Your task to perform on an android device: move a message to another label in the gmail app Image 0: 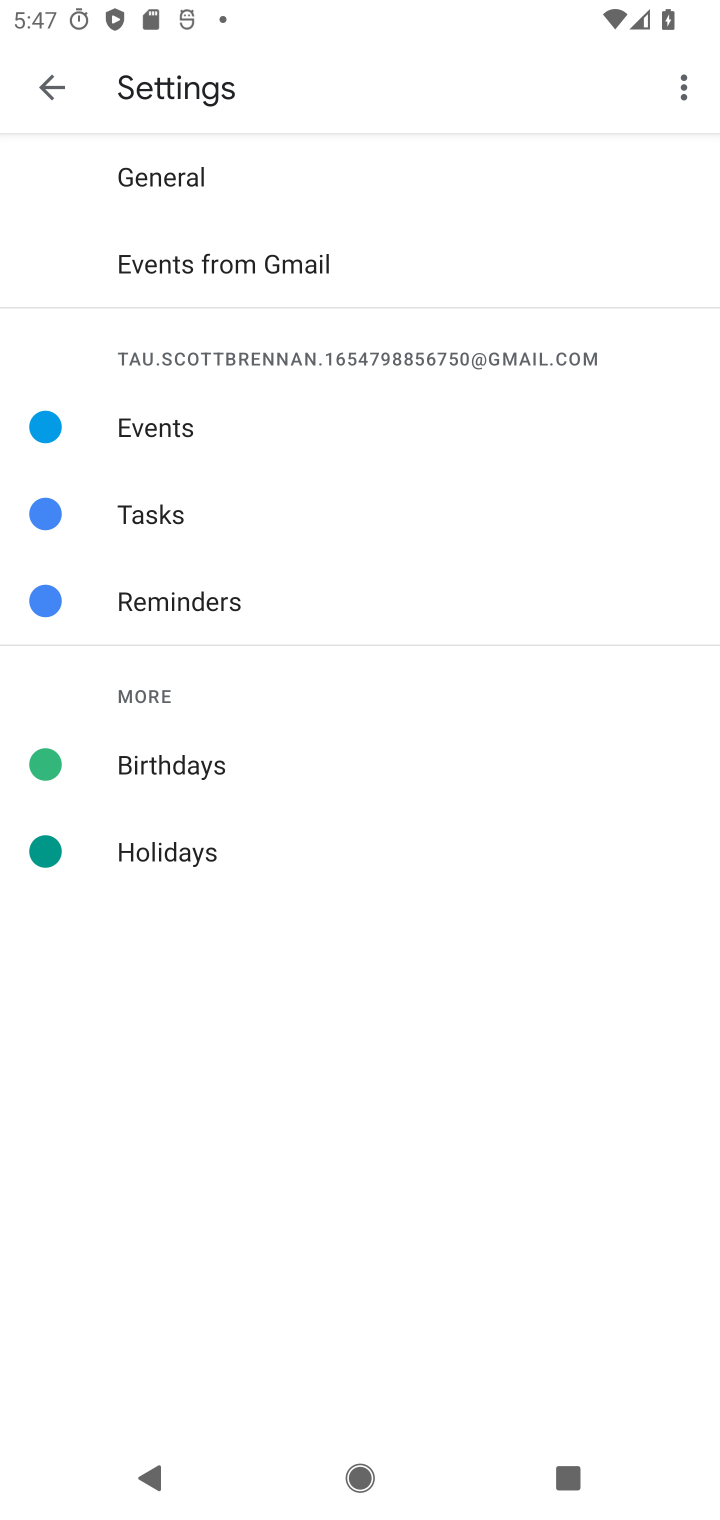
Step 0: press home button
Your task to perform on an android device: move a message to another label in the gmail app Image 1: 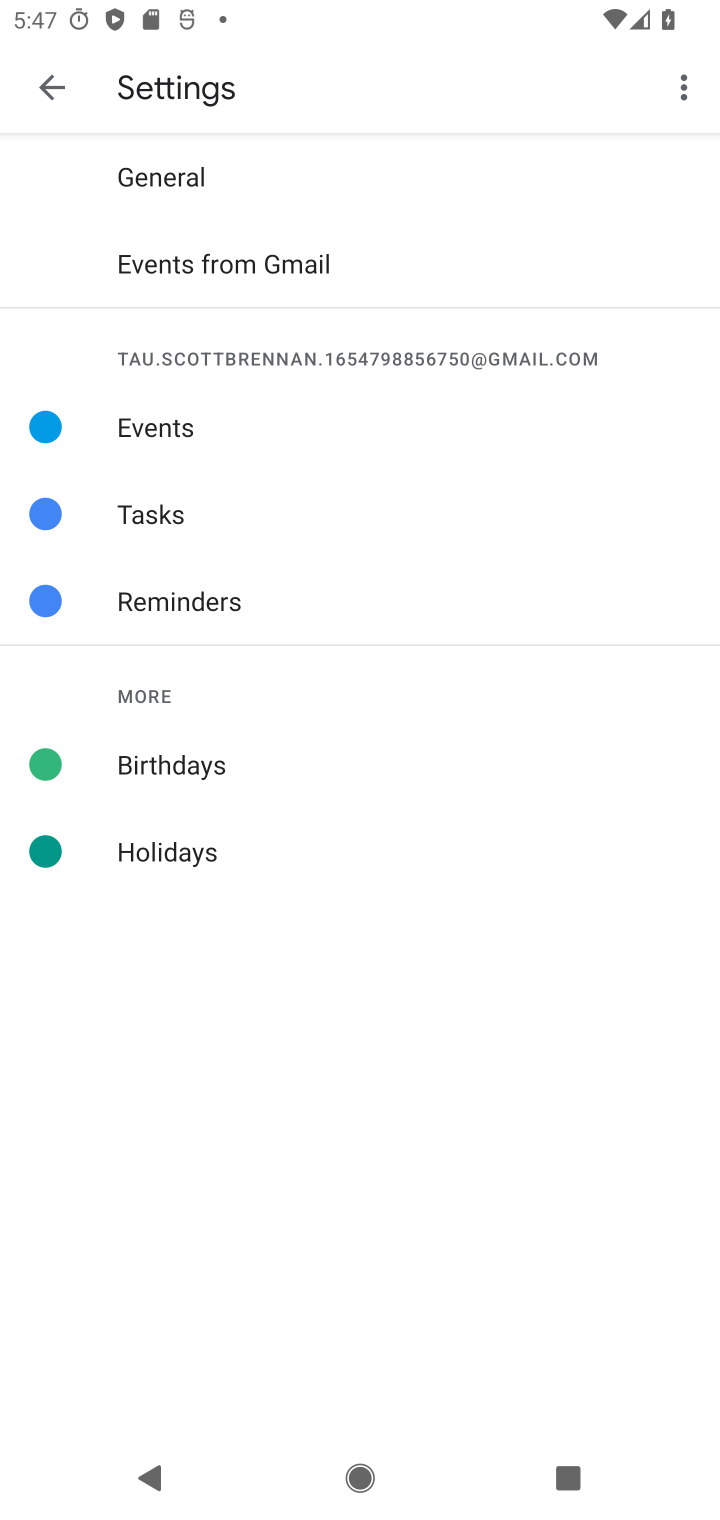
Step 1: press home button
Your task to perform on an android device: move a message to another label in the gmail app Image 2: 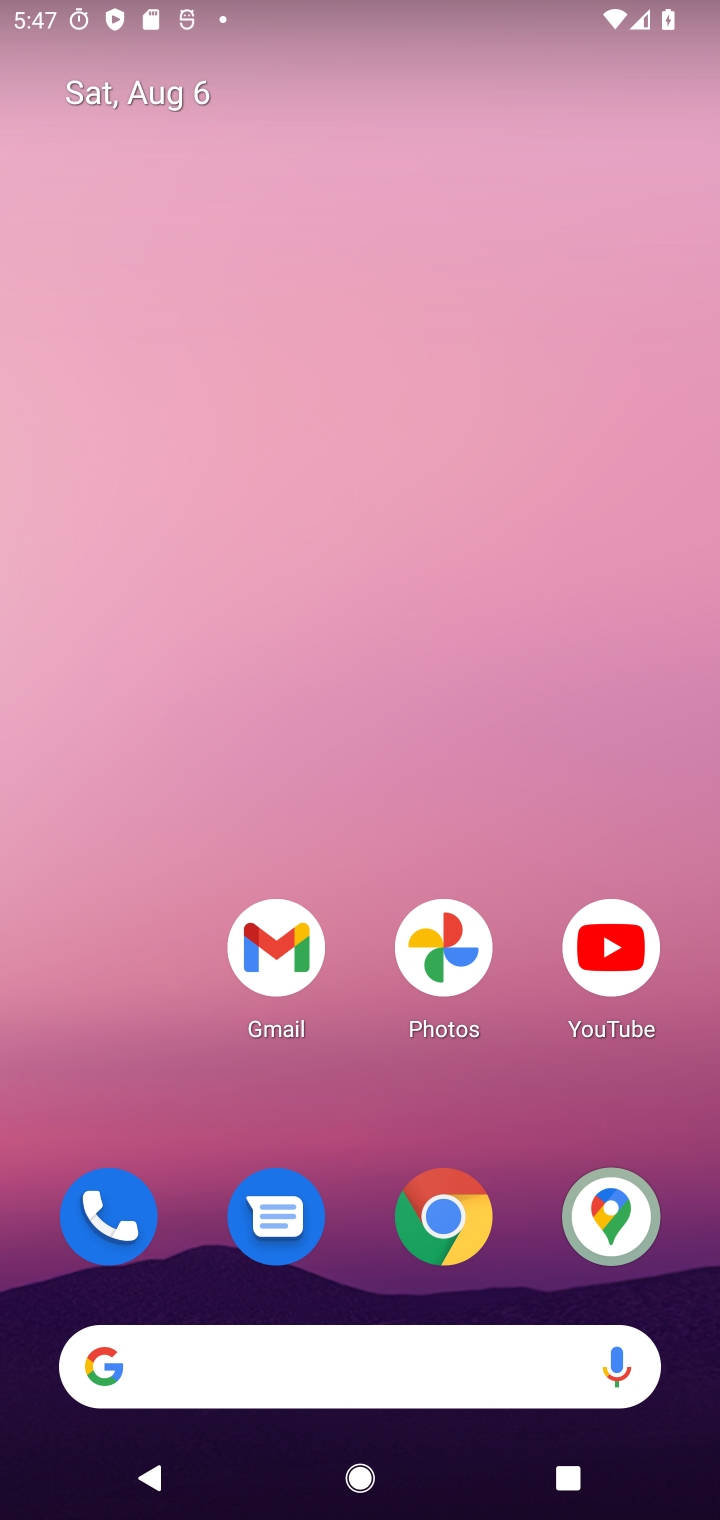
Step 2: drag from (364, 1109) to (376, 0)
Your task to perform on an android device: move a message to another label in the gmail app Image 3: 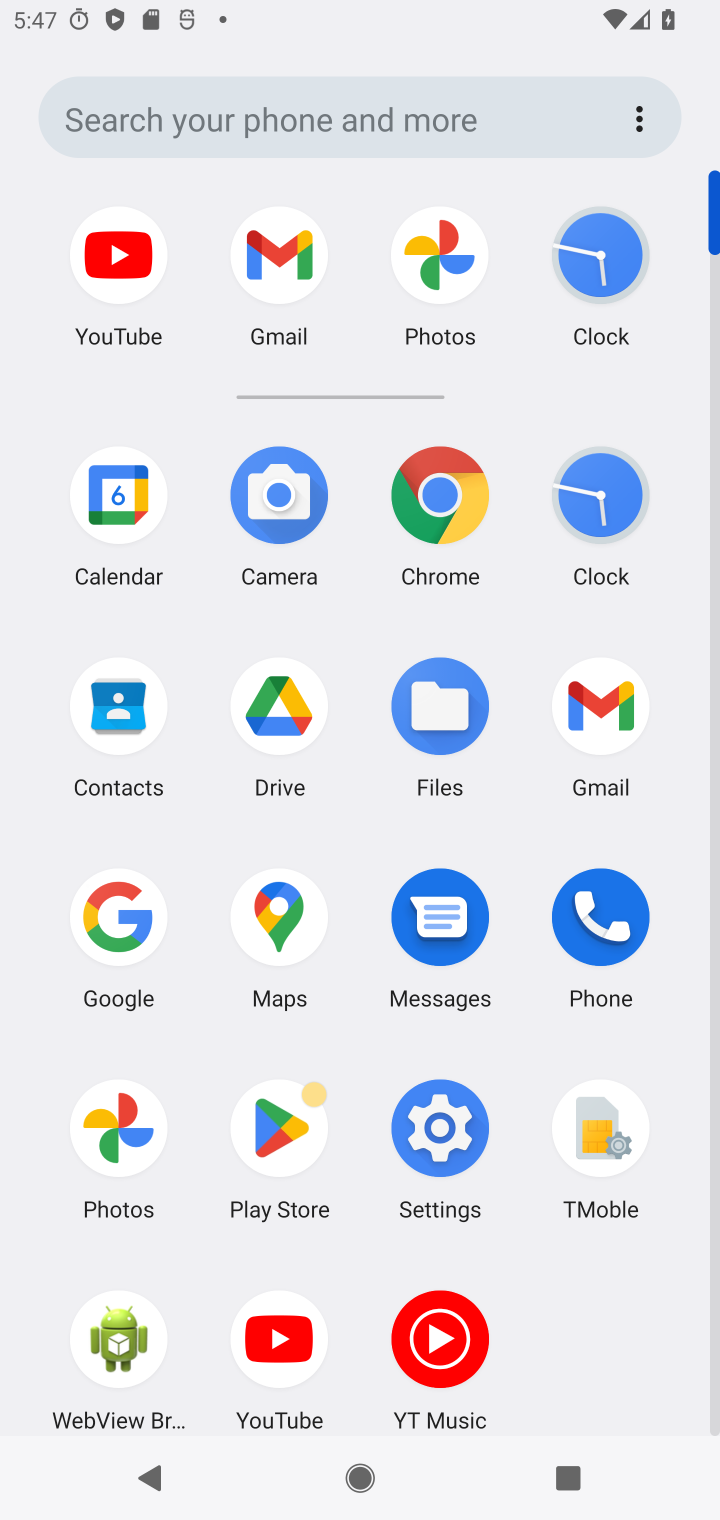
Step 3: click (612, 704)
Your task to perform on an android device: move a message to another label in the gmail app Image 4: 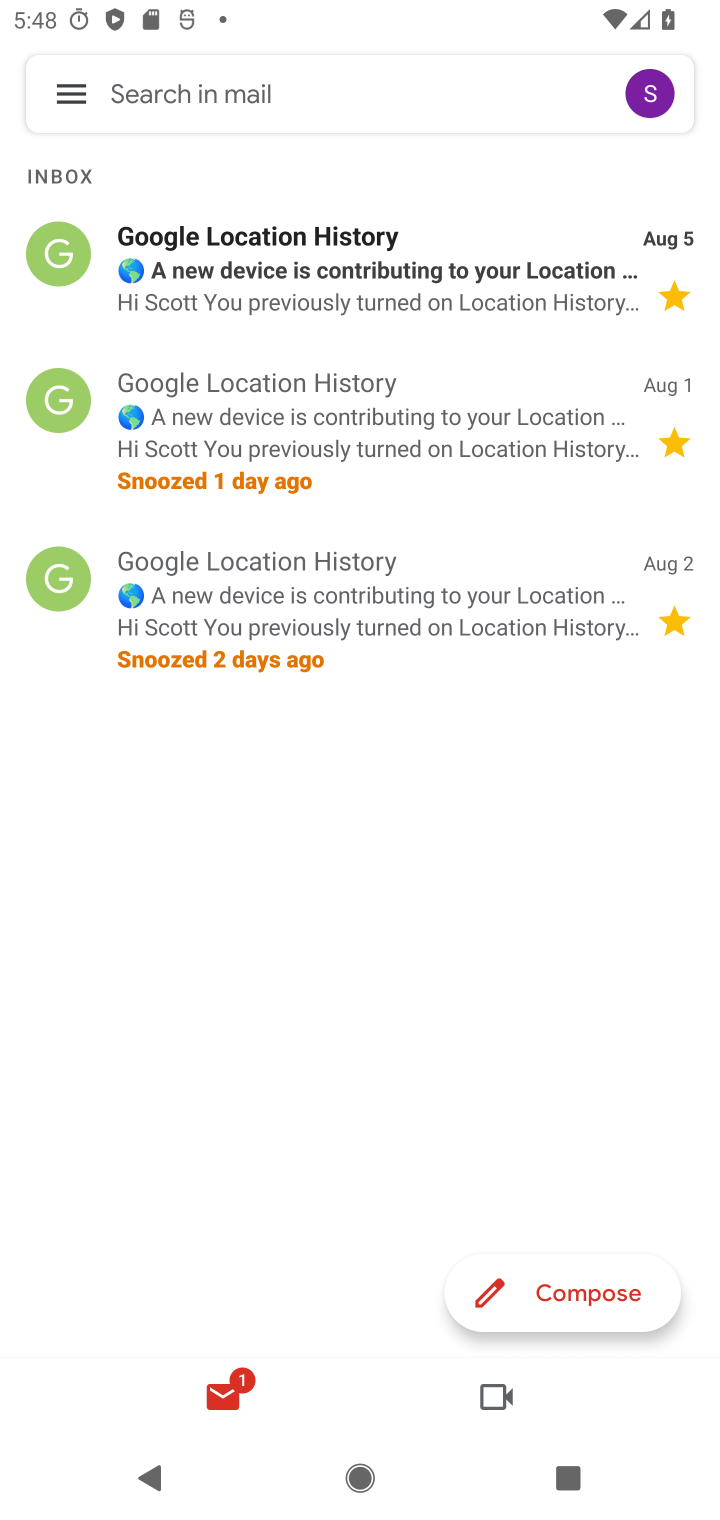
Step 4: click (408, 277)
Your task to perform on an android device: move a message to another label in the gmail app Image 5: 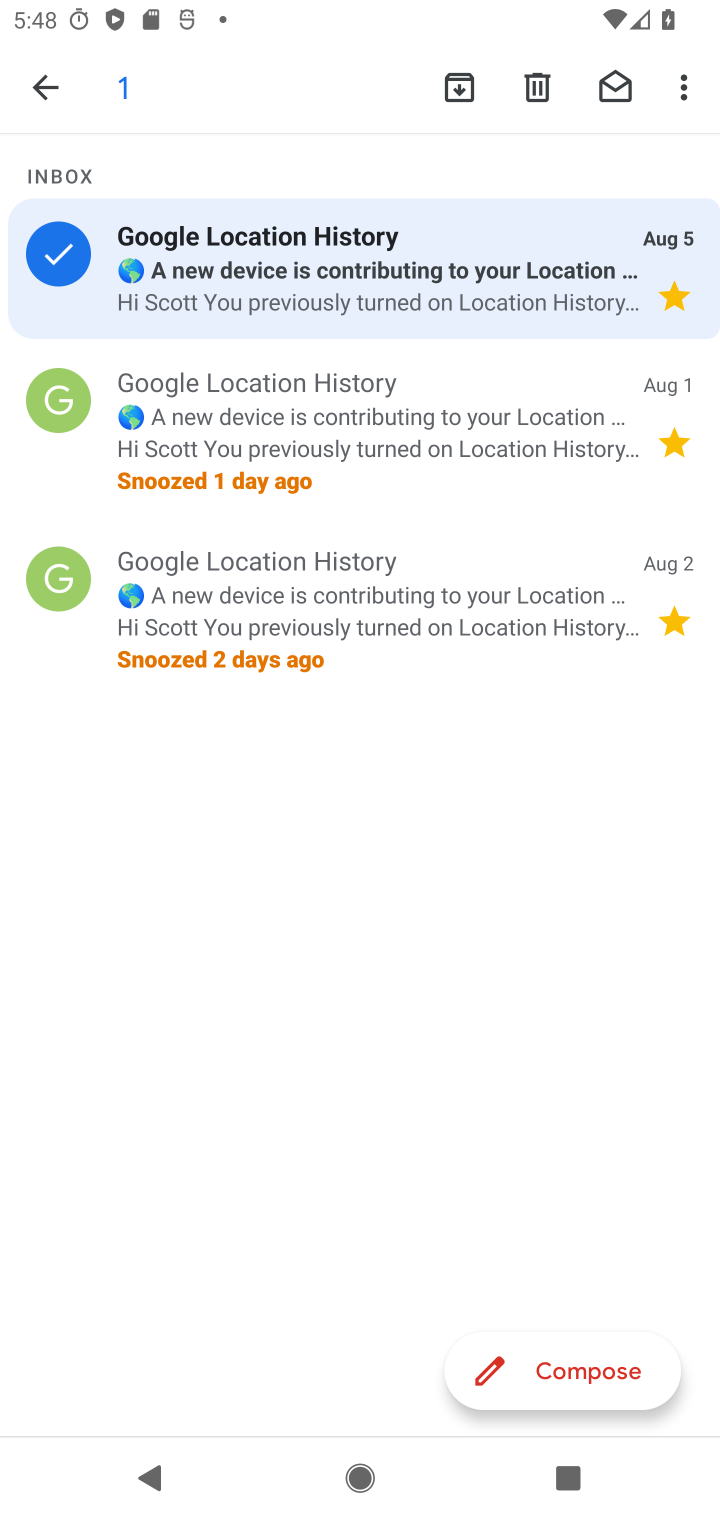
Step 5: click (691, 72)
Your task to perform on an android device: move a message to another label in the gmail app Image 6: 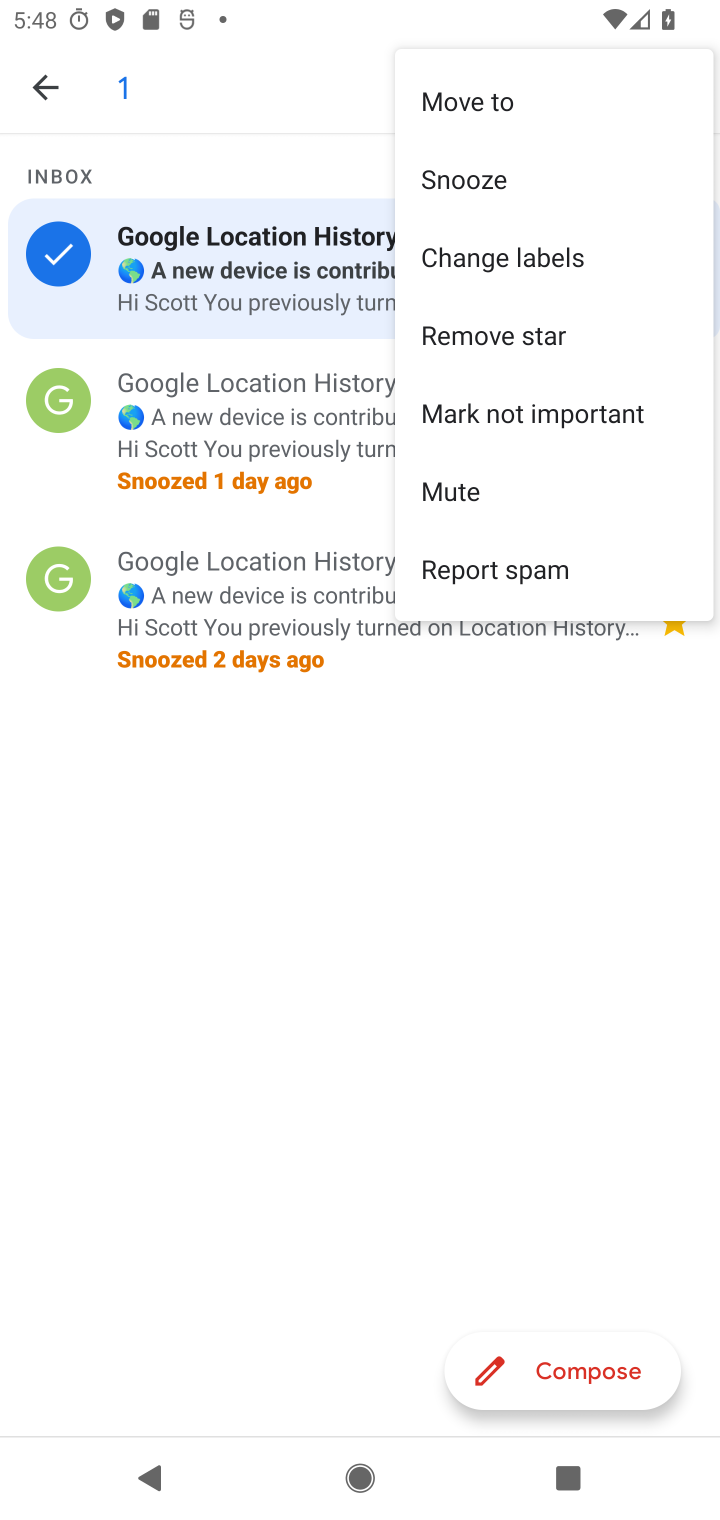
Step 6: click (537, 251)
Your task to perform on an android device: move a message to another label in the gmail app Image 7: 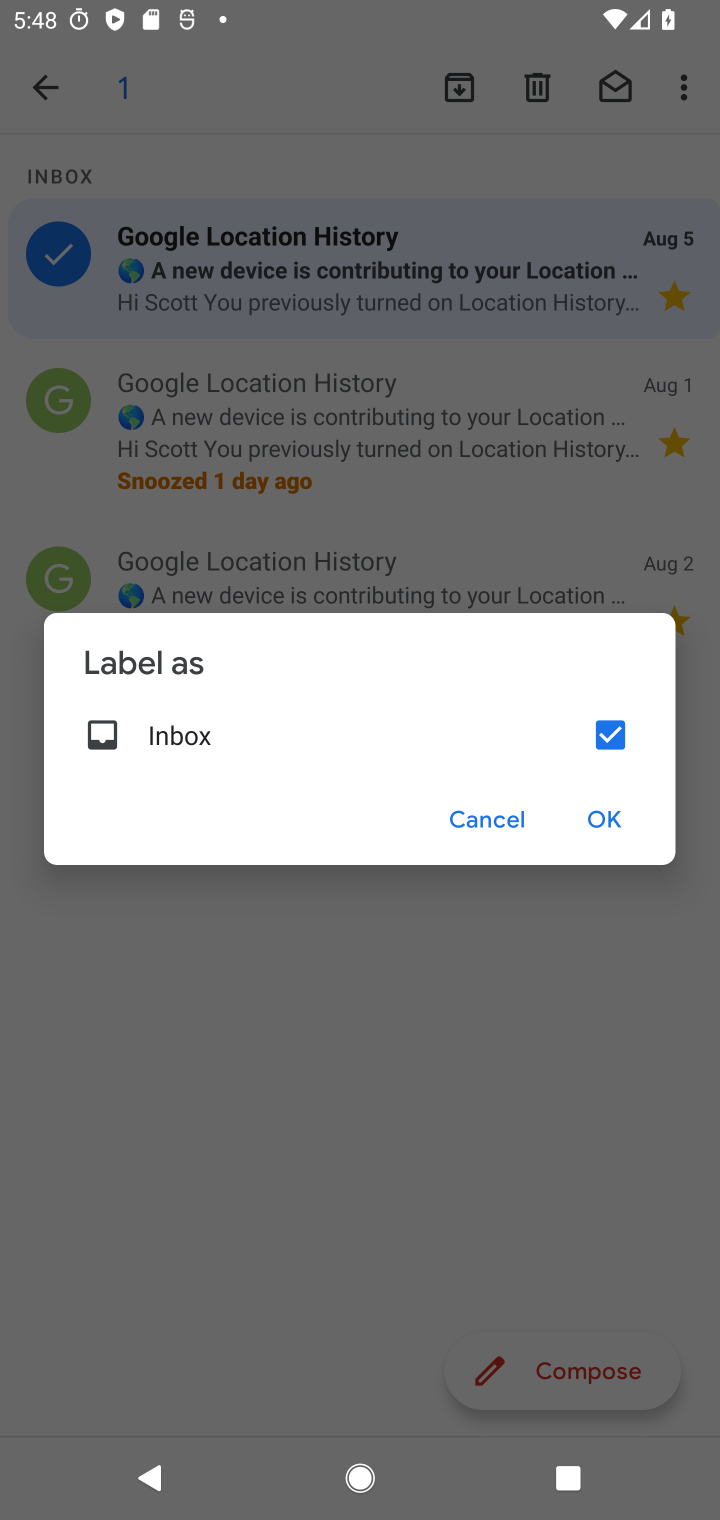
Step 7: click (604, 726)
Your task to perform on an android device: move a message to another label in the gmail app Image 8: 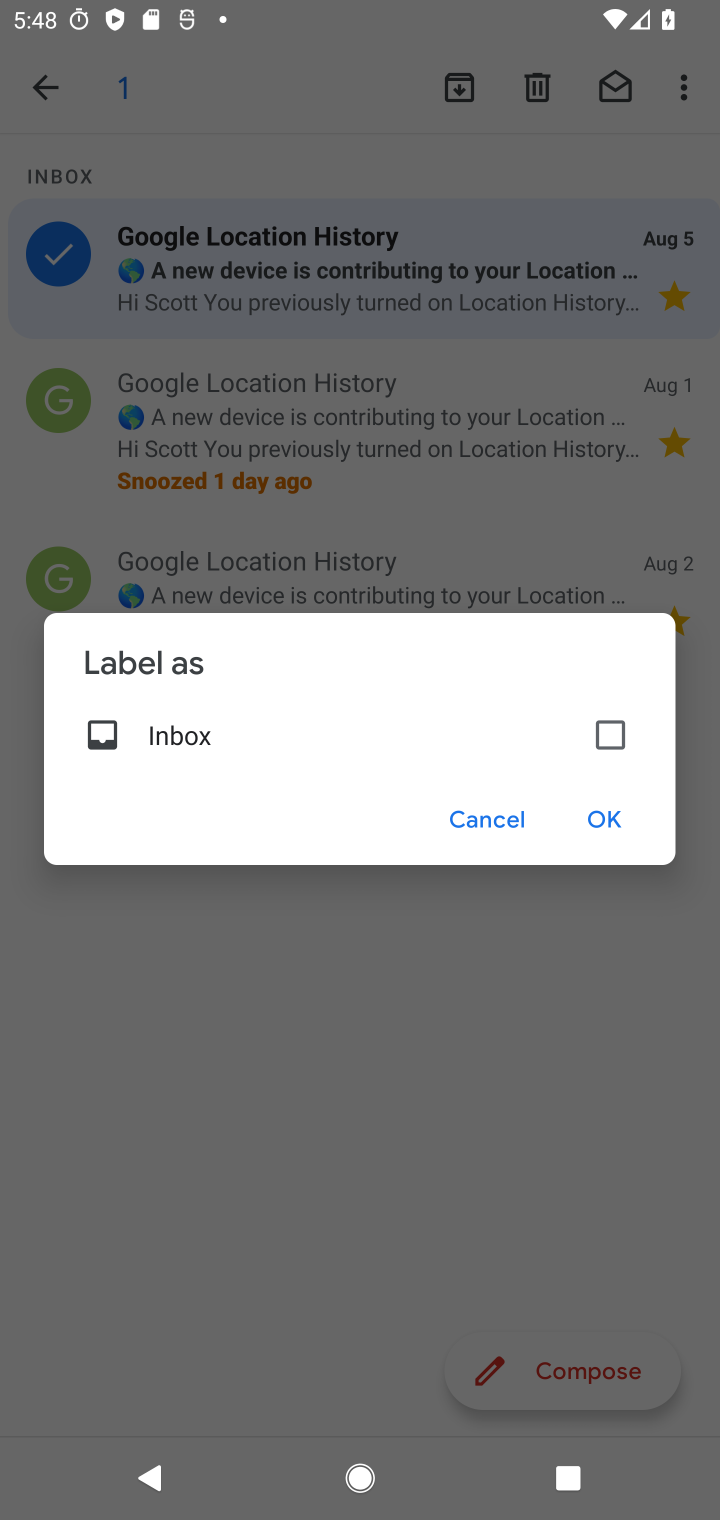
Step 8: click (615, 809)
Your task to perform on an android device: move a message to another label in the gmail app Image 9: 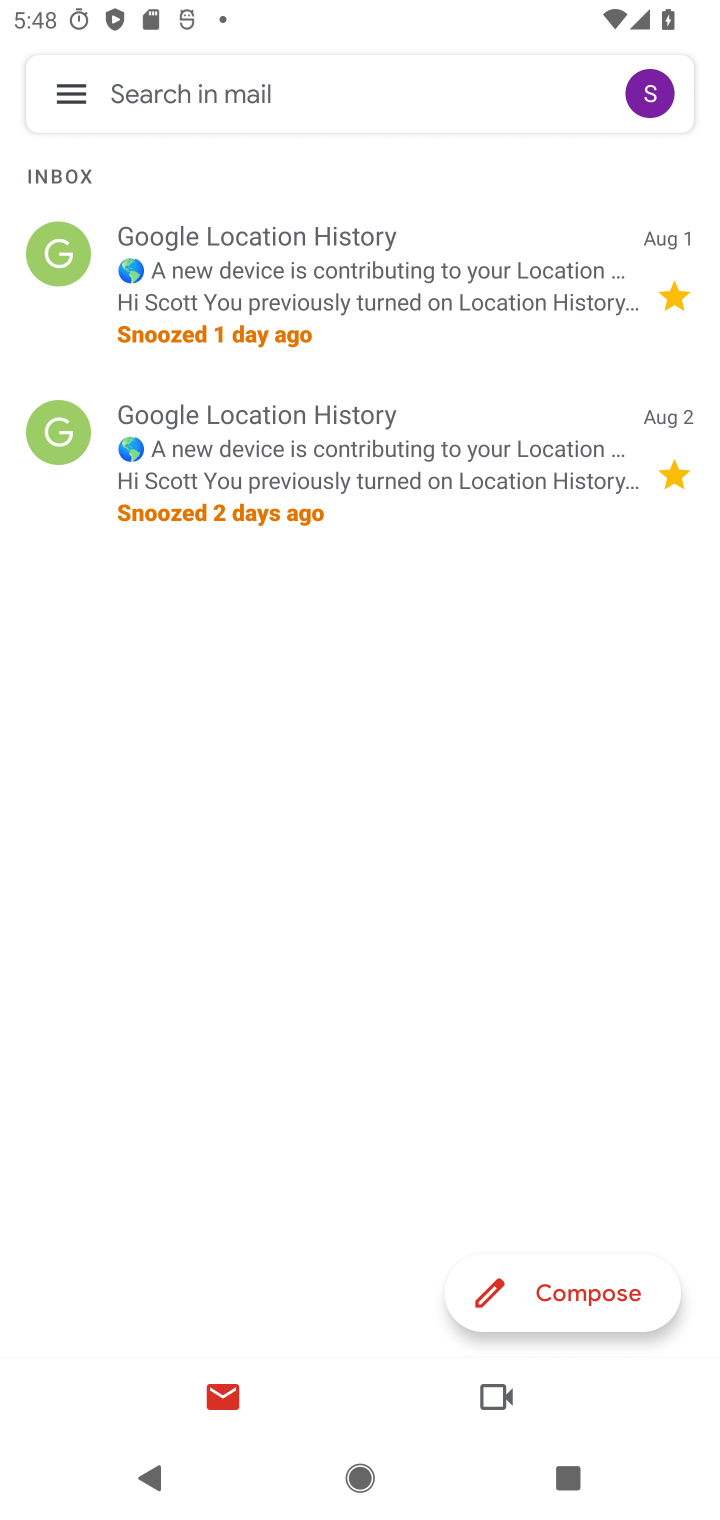
Step 9: task complete